Your task to perform on an android device: Search for flights from Sydney to Buenos aires Image 0: 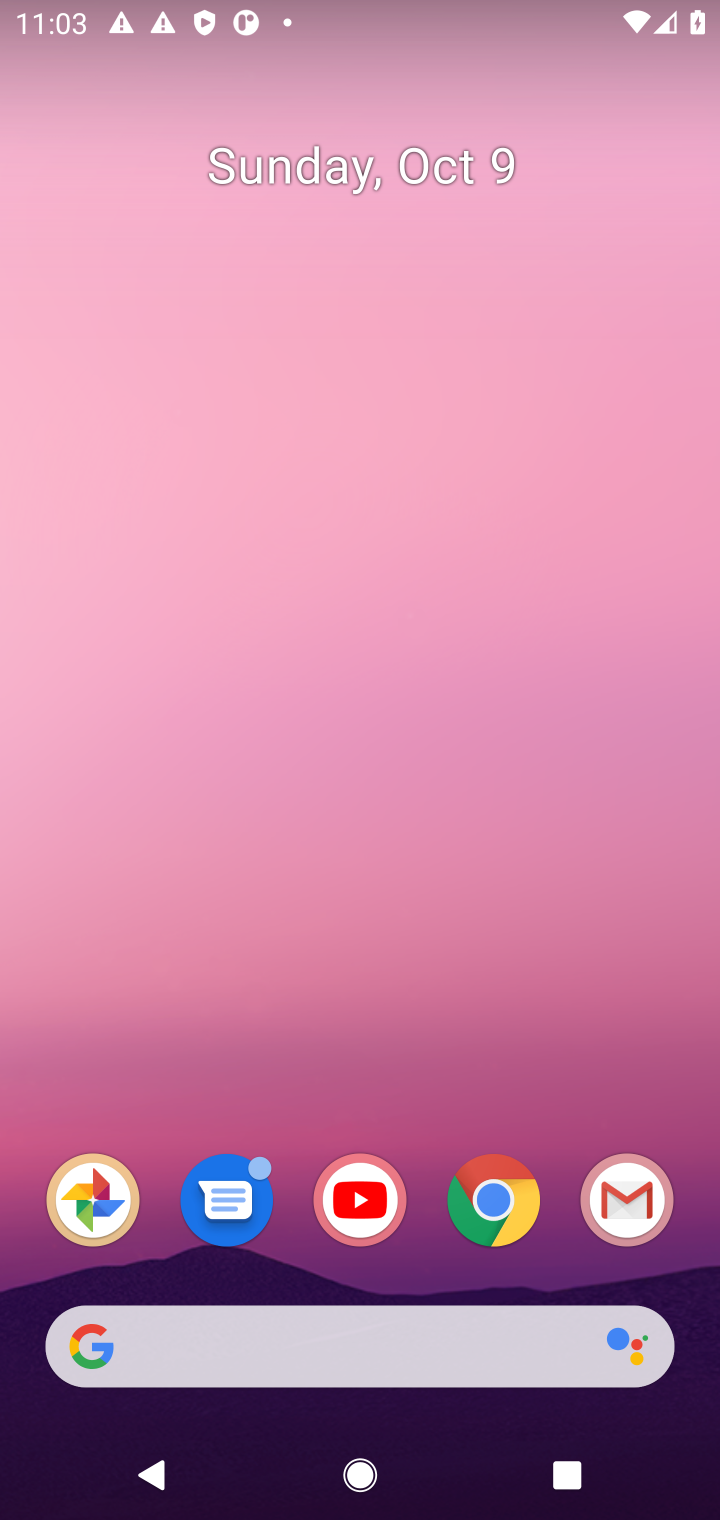
Step 0: click (478, 1203)
Your task to perform on an android device: Search for flights from Sydney to Buenos aires Image 1: 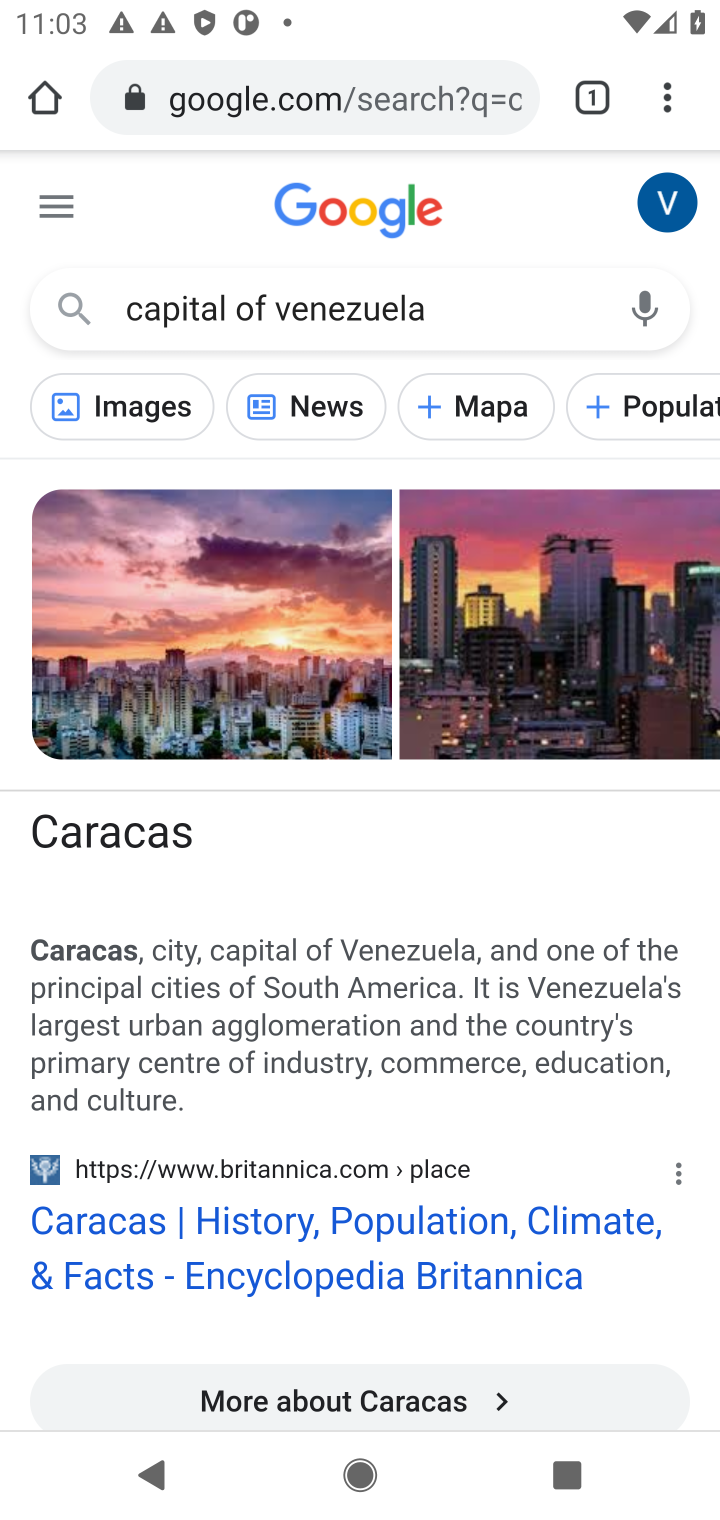
Step 1: click (362, 87)
Your task to perform on an android device: Search for flights from Sydney to Buenos aires Image 2: 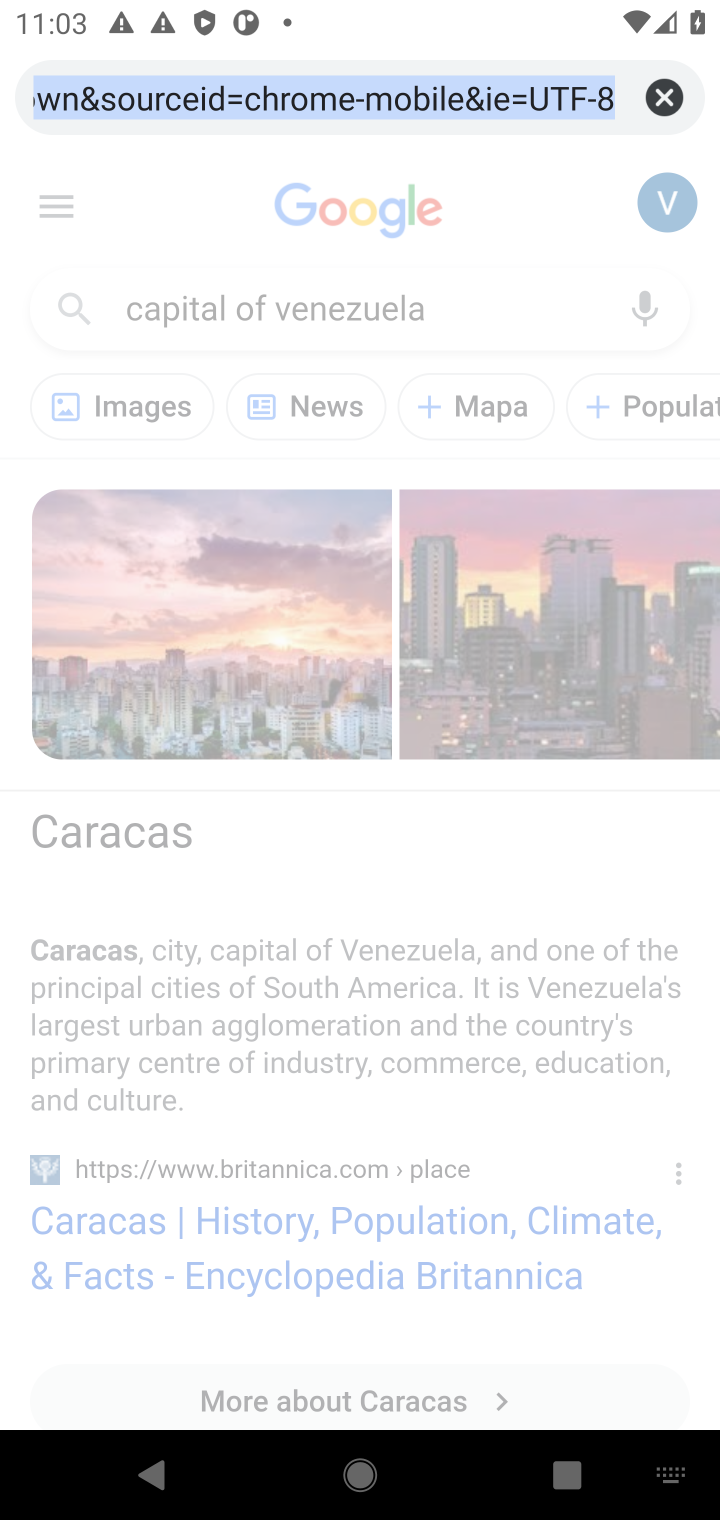
Step 2: type "flights from Sydney to Buenos aires"
Your task to perform on an android device: Search for flights from Sydney to Buenos aires Image 3: 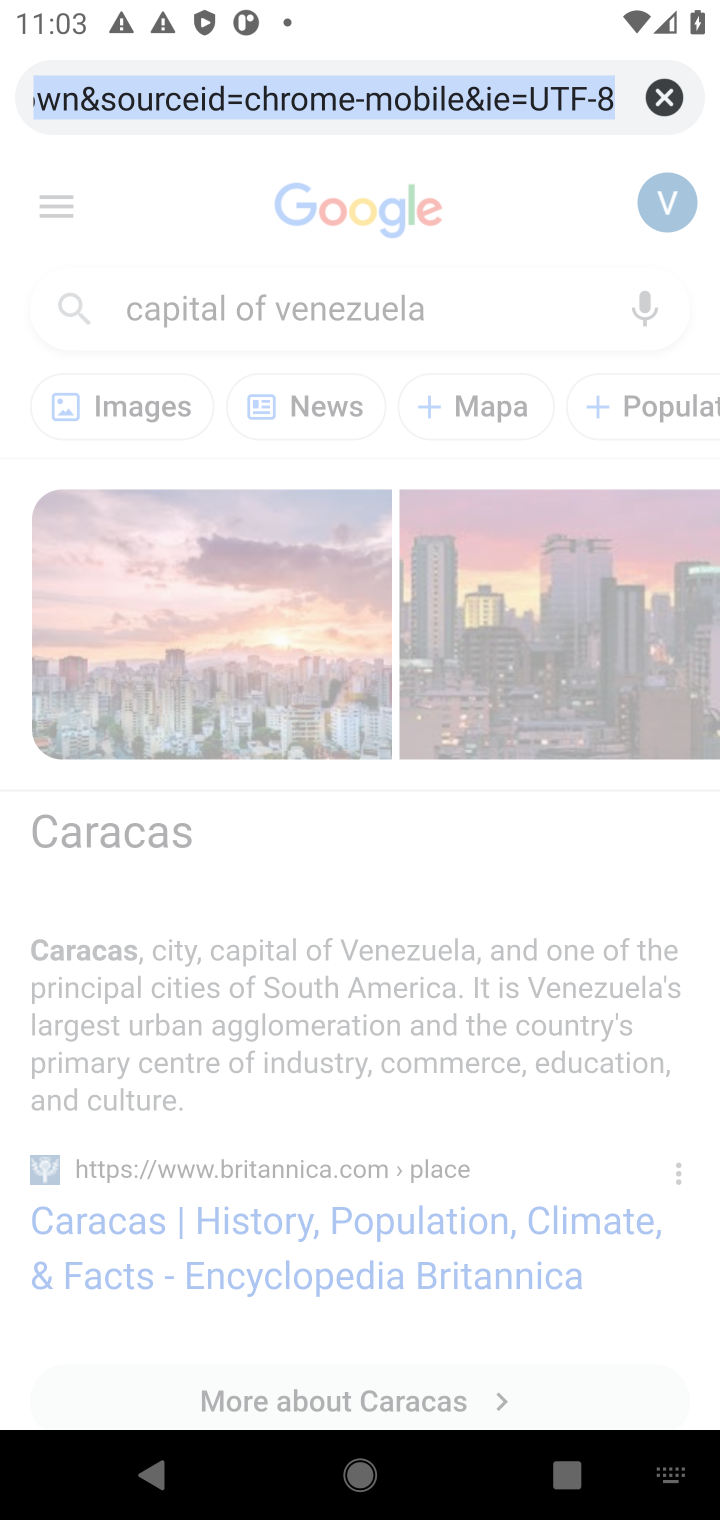
Step 3: click (354, 96)
Your task to perform on an android device: Search for flights from Sydney to Buenos aires Image 4: 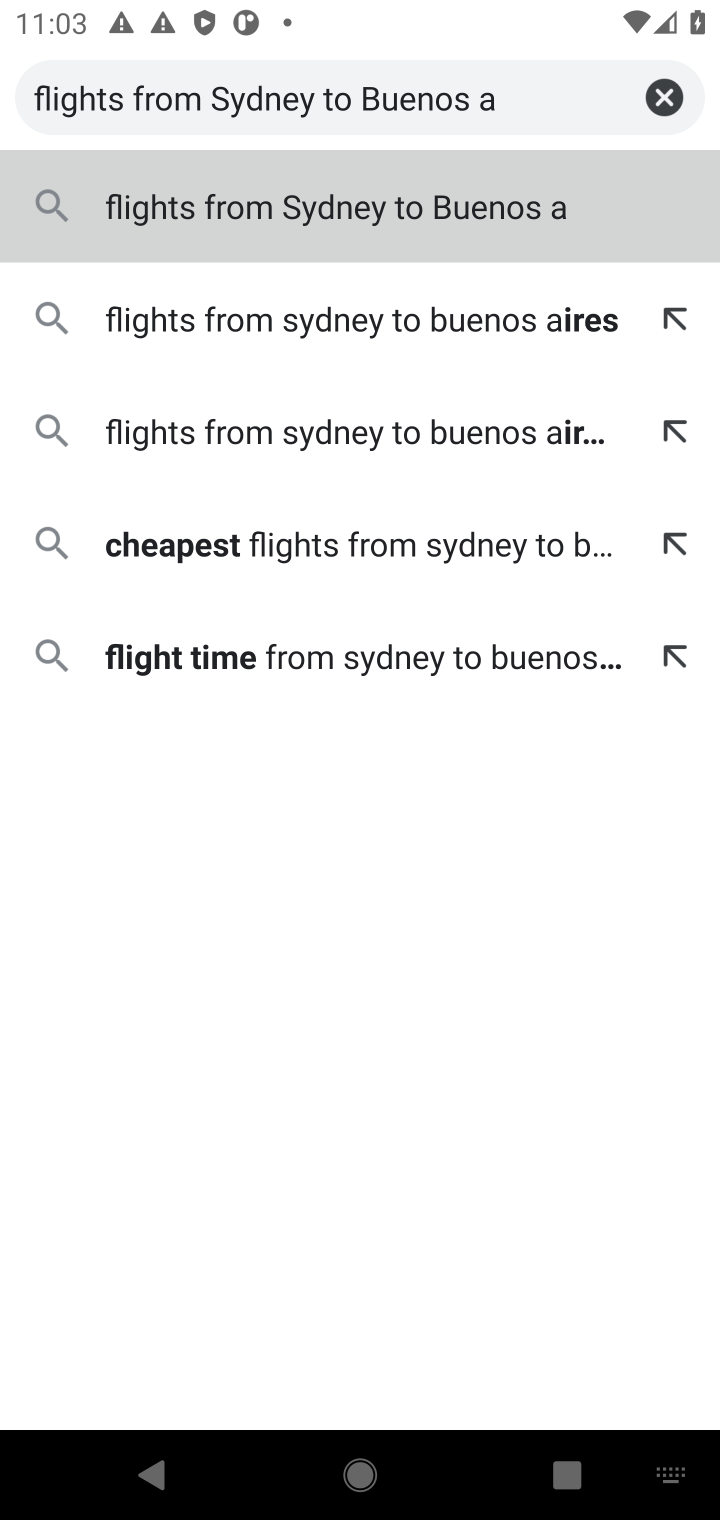
Step 4: click (420, 218)
Your task to perform on an android device: Search for flights from Sydney to Buenos aires Image 5: 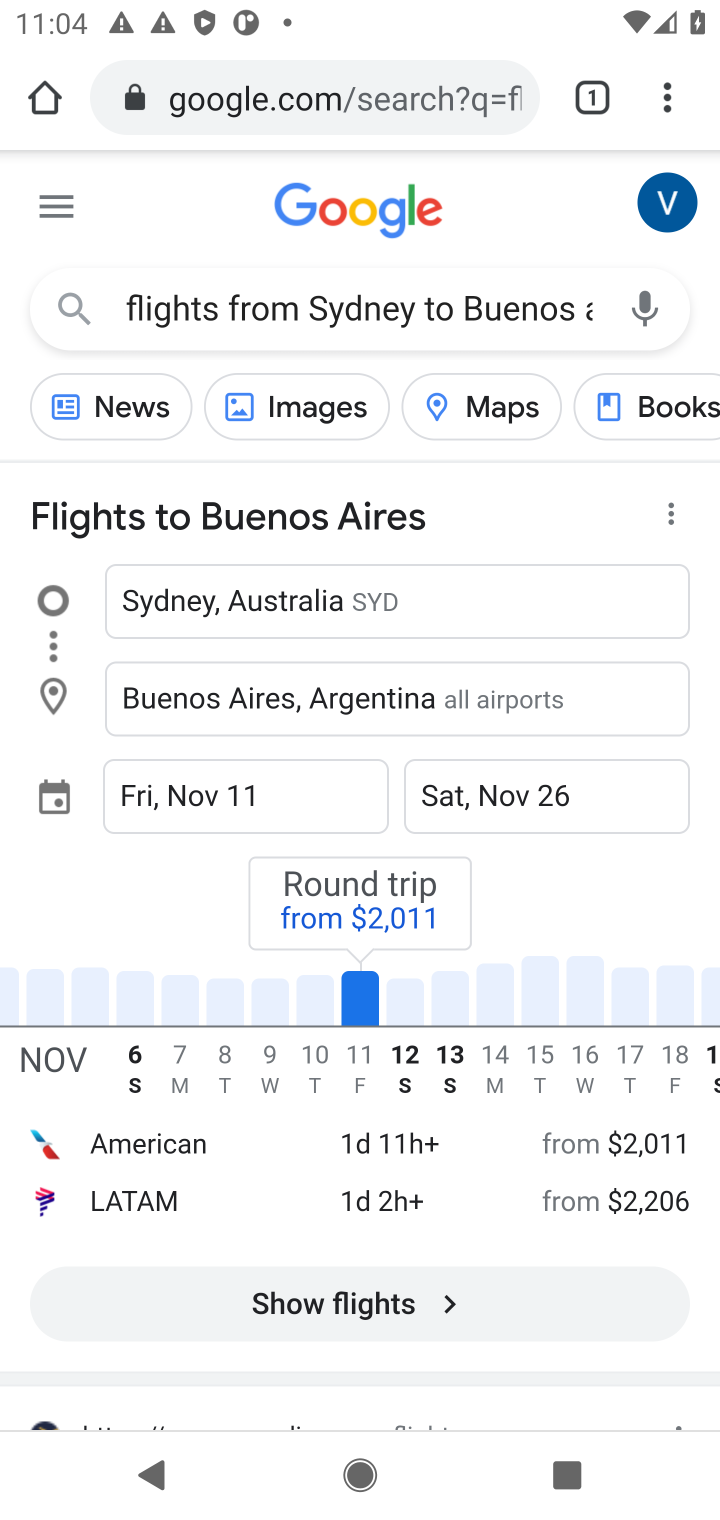
Step 5: task complete